Your task to perform on an android device: star an email in the gmail app Image 0: 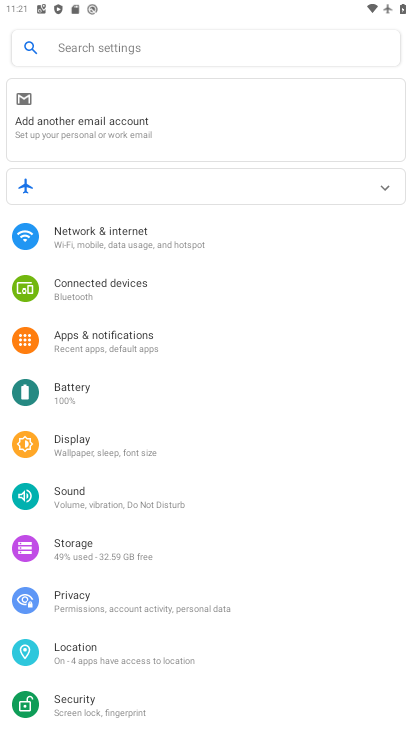
Step 0: press home button
Your task to perform on an android device: star an email in the gmail app Image 1: 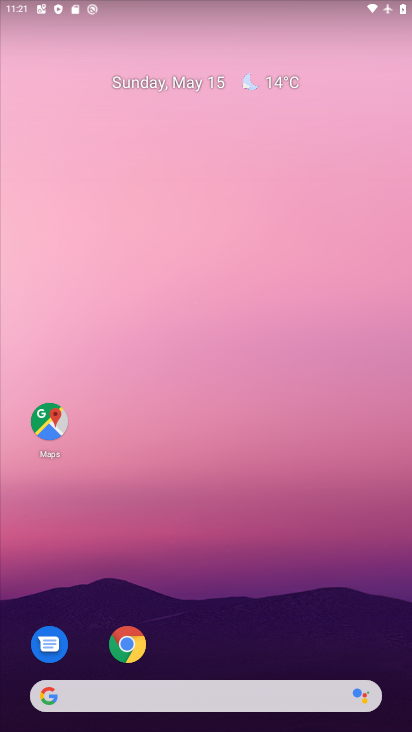
Step 1: drag from (200, 505) to (119, 65)
Your task to perform on an android device: star an email in the gmail app Image 2: 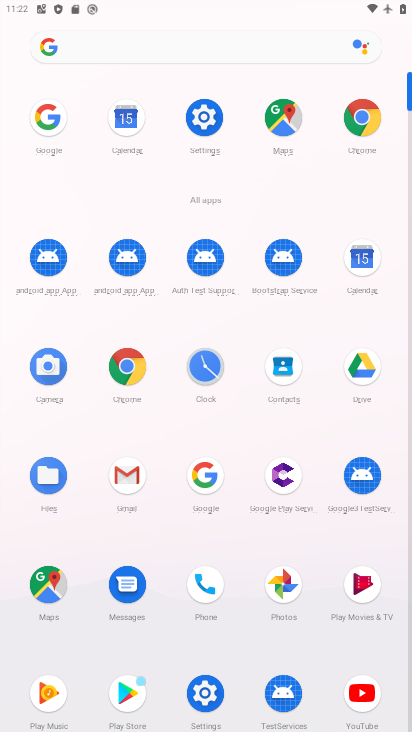
Step 2: click (129, 480)
Your task to perform on an android device: star an email in the gmail app Image 3: 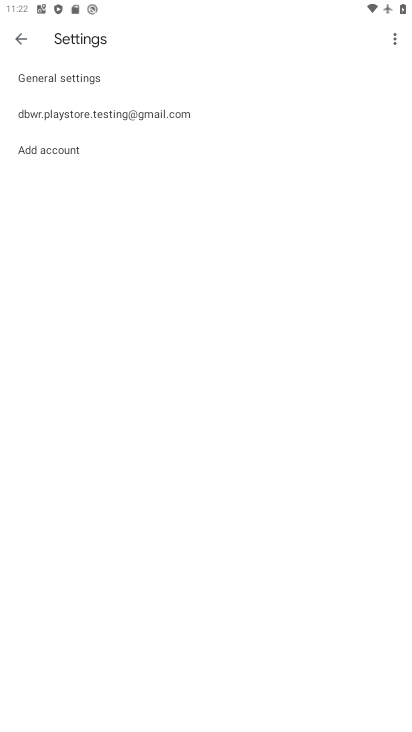
Step 3: click (13, 41)
Your task to perform on an android device: star an email in the gmail app Image 4: 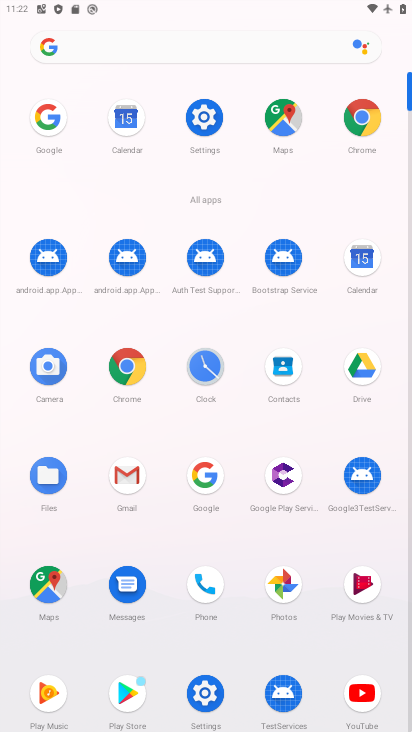
Step 4: click (134, 469)
Your task to perform on an android device: star an email in the gmail app Image 5: 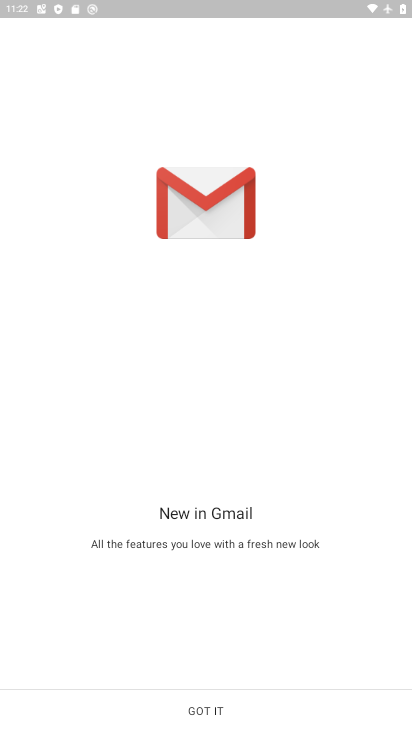
Step 5: click (209, 715)
Your task to perform on an android device: star an email in the gmail app Image 6: 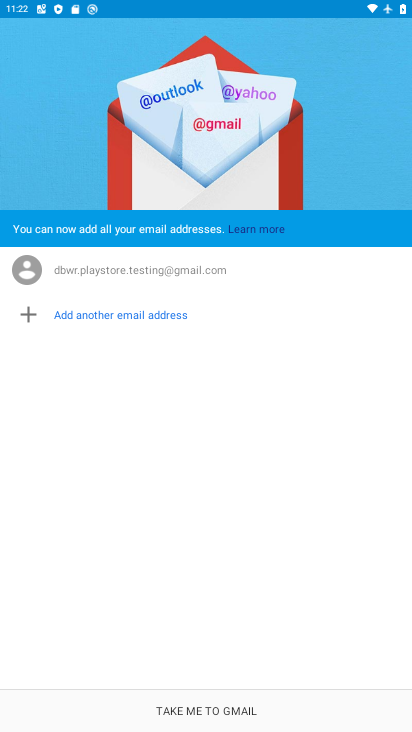
Step 6: click (222, 705)
Your task to perform on an android device: star an email in the gmail app Image 7: 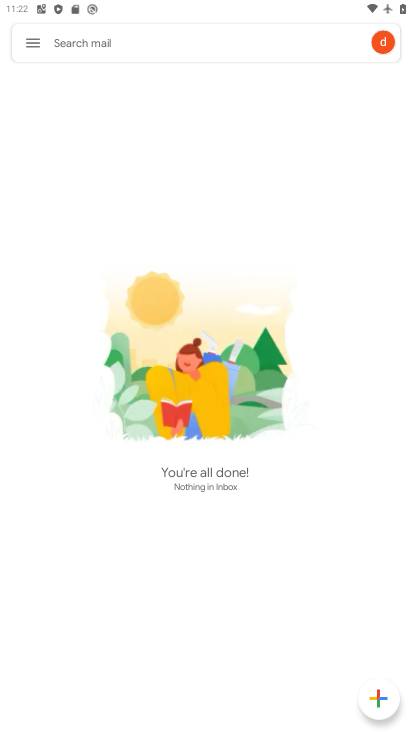
Step 7: task complete